Your task to perform on an android device: change text size in settings app Image 0: 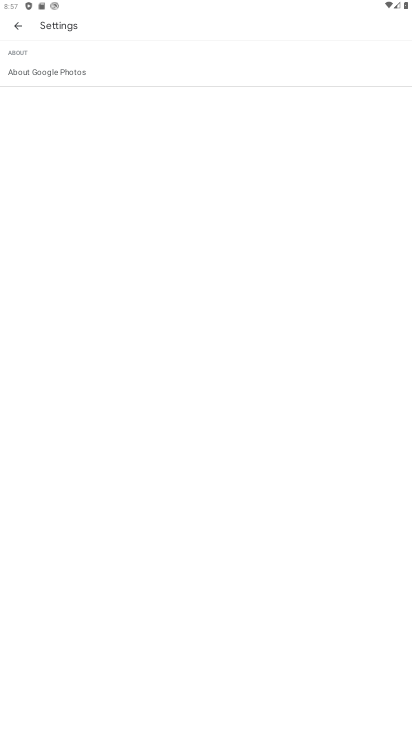
Step 0: press home button
Your task to perform on an android device: change text size in settings app Image 1: 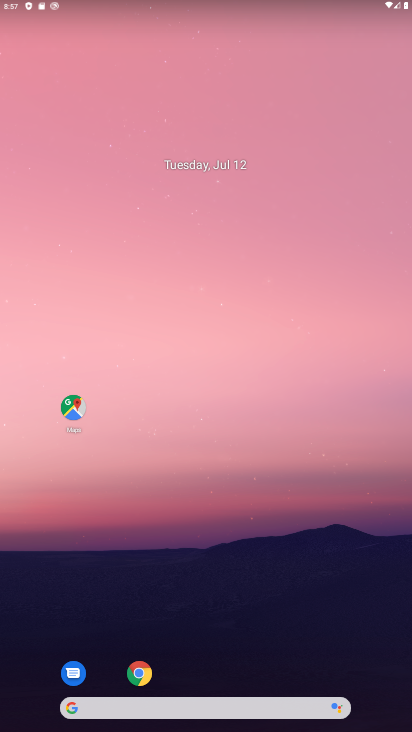
Step 1: drag from (200, 686) to (144, 119)
Your task to perform on an android device: change text size in settings app Image 2: 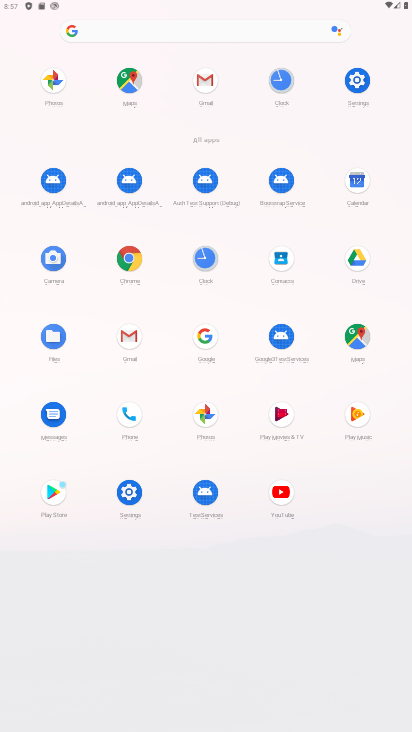
Step 2: click (359, 84)
Your task to perform on an android device: change text size in settings app Image 3: 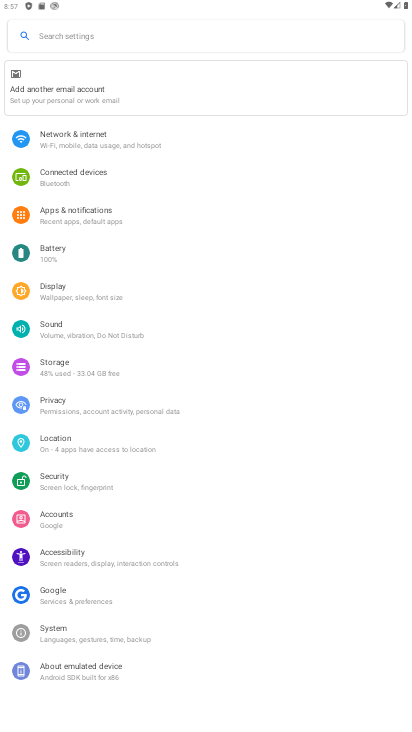
Step 3: click (74, 289)
Your task to perform on an android device: change text size in settings app Image 4: 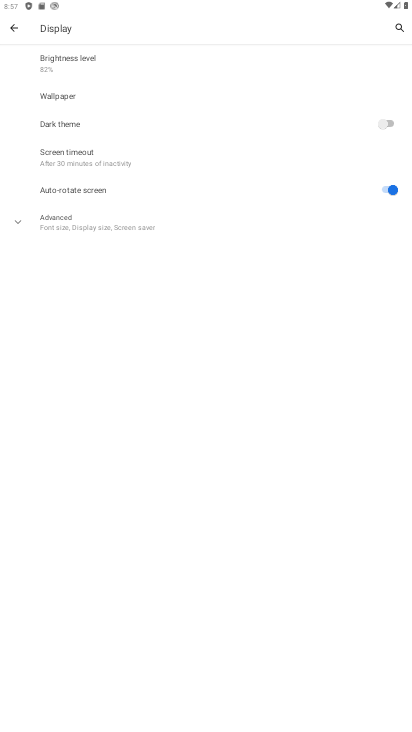
Step 4: click (37, 214)
Your task to perform on an android device: change text size in settings app Image 5: 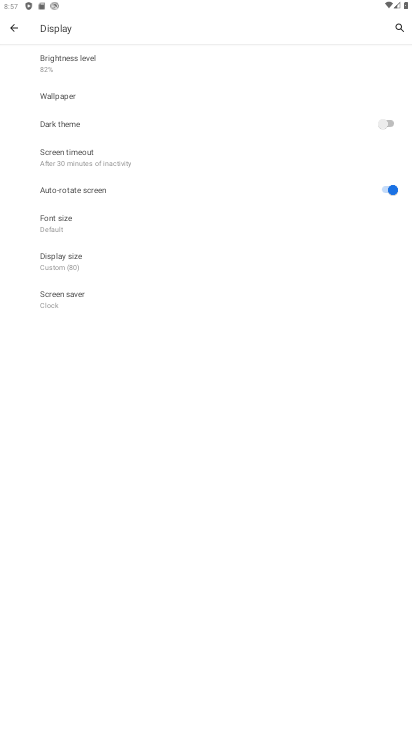
Step 5: click (59, 225)
Your task to perform on an android device: change text size in settings app Image 6: 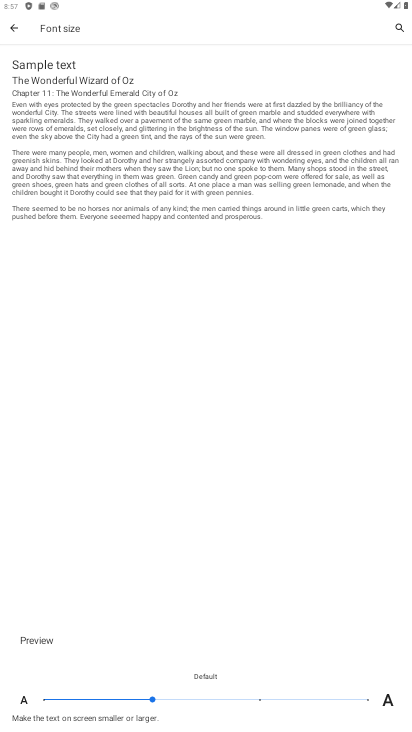
Step 6: click (260, 702)
Your task to perform on an android device: change text size in settings app Image 7: 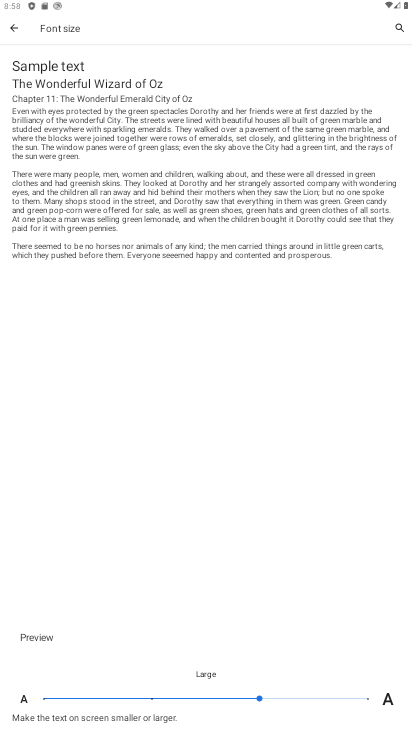
Step 7: task complete